Your task to perform on an android device: turn on the 12-hour format for clock Image 0: 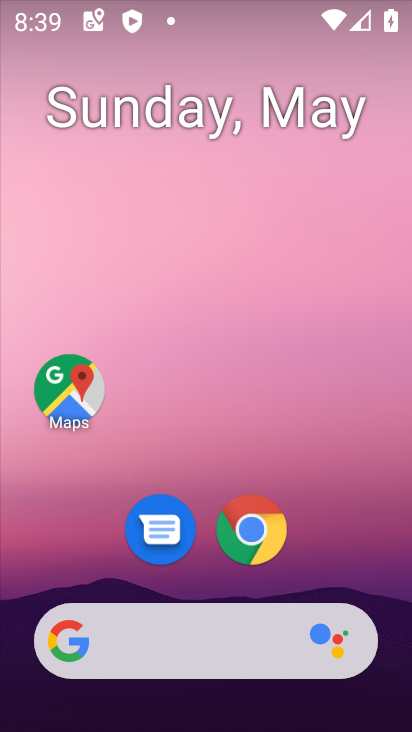
Step 0: drag from (354, 589) to (390, 0)
Your task to perform on an android device: turn on the 12-hour format for clock Image 1: 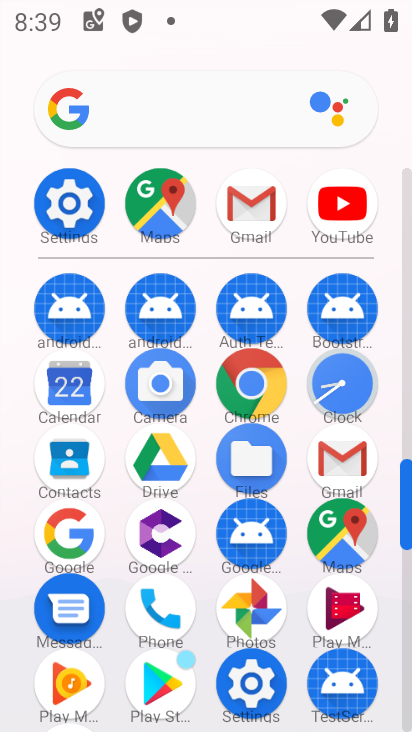
Step 1: click (333, 396)
Your task to perform on an android device: turn on the 12-hour format for clock Image 2: 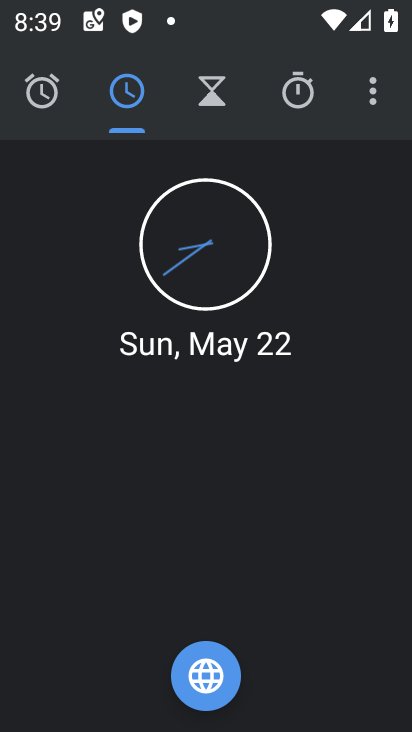
Step 2: click (378, 100)
Your task to perform on an android device: turn on the 12-hour format for clock Image 3: 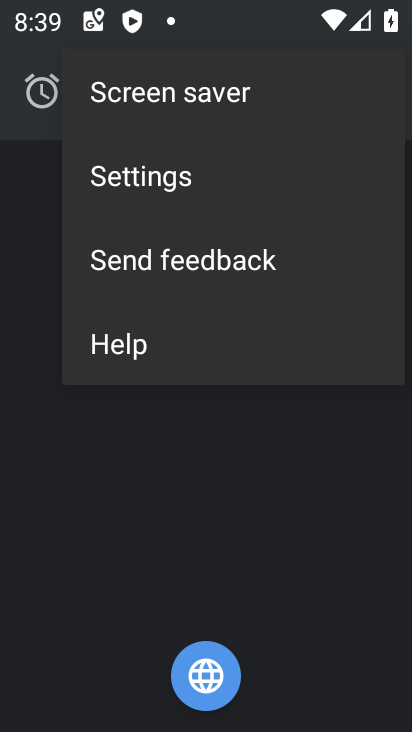
Step 3: click (127, 185)
Your task to perform on an android device: turn on the 12-hour format for clock Image 4: 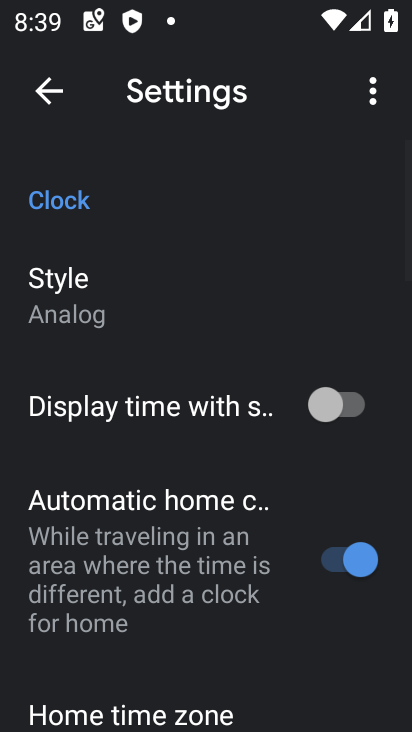
Step 4: drag from (175, 630) to (199, 143)
Your task to perform on an android device: turn on the 12-hour format for clock Image 5: 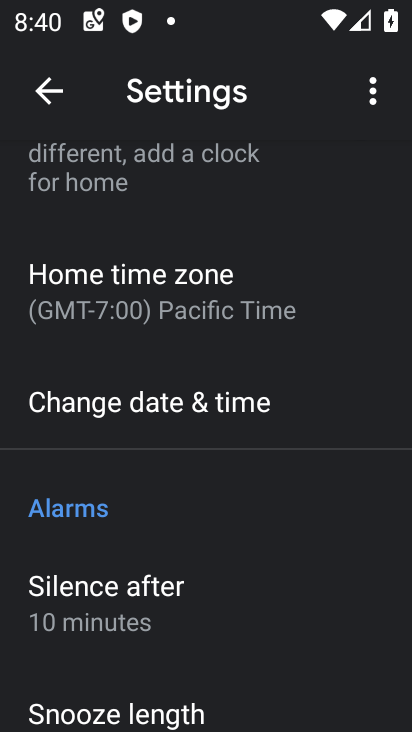
Step 5: click (136, 405)
Your task to perform on an android device: turn on the 12-hour format for clock Image 6: 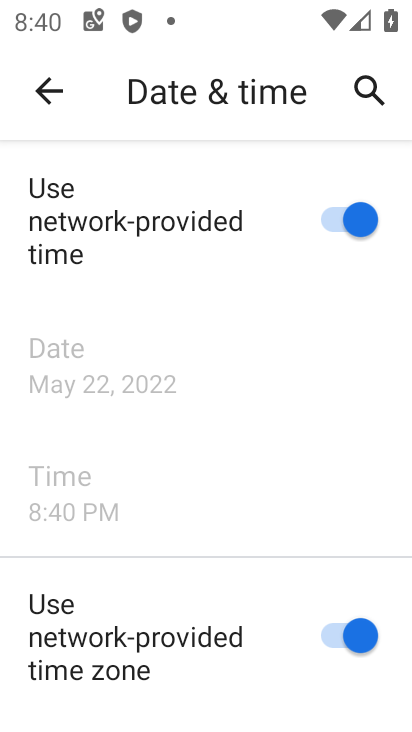
Step 6: task complete